Your task to perform on an android device: manage bookmarks in the chrome app Image 0: 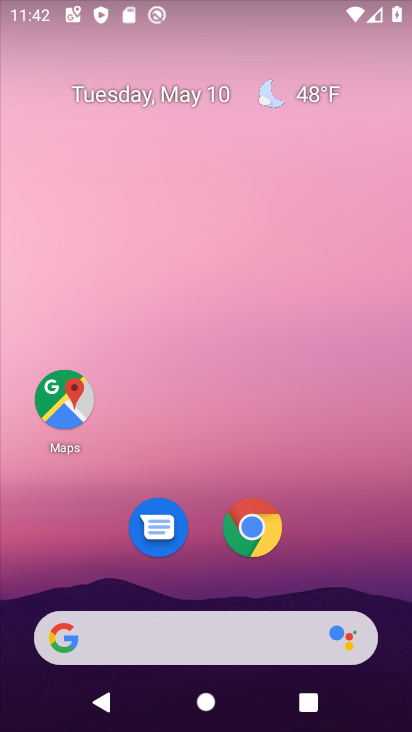
Step 0: click (254, 534)
Your task to perform on an android device: manage bookmarks in the chrome app Image 1: 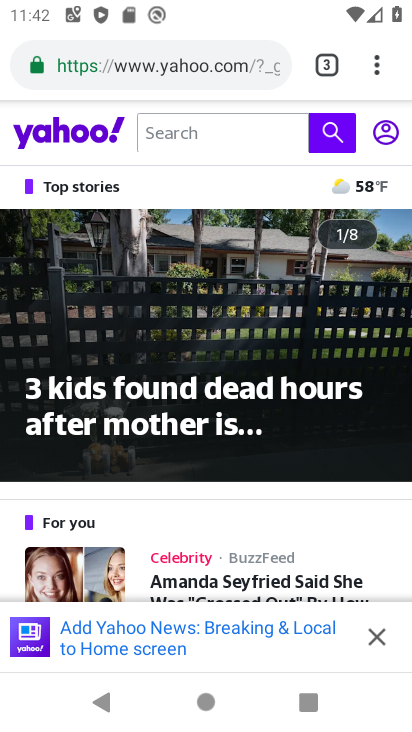
Step 1: click (376, 70)
Your task to perform on an android device: manage bookmarks in the chrome app Image 2: 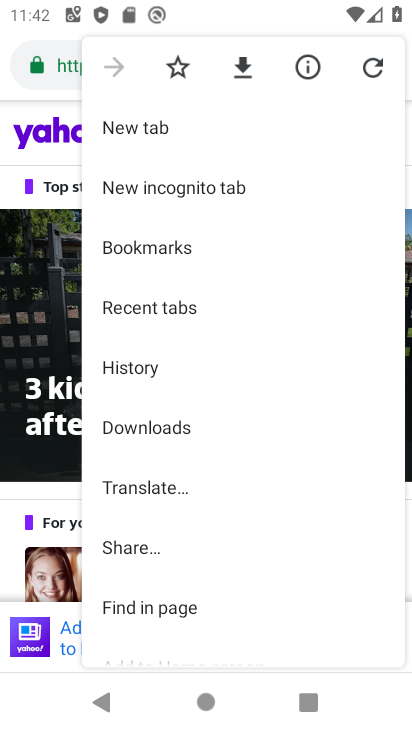
Step 2: click (151, 247)
Your task to perform on an android device: manage bookmarks in the chrome app Image 3: 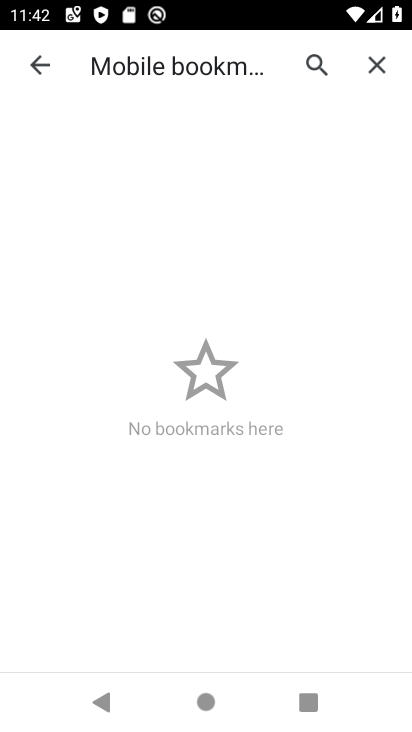
Step 3: task complete